Your task to perform on an android device: change the clock style Image 0: 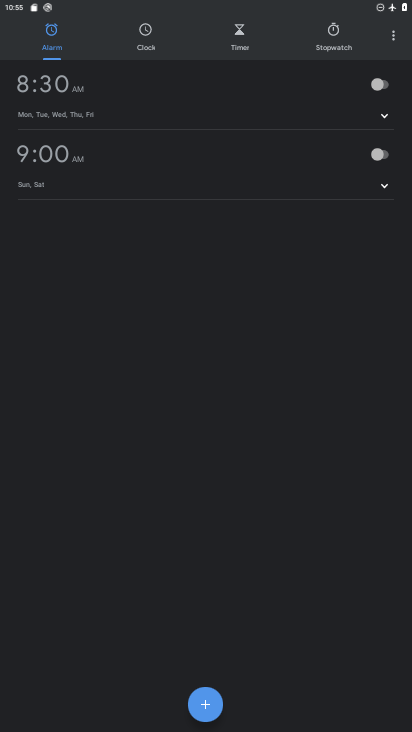
Step 0: press home button
Your task to perform on an android device: change the clock style Image 1: 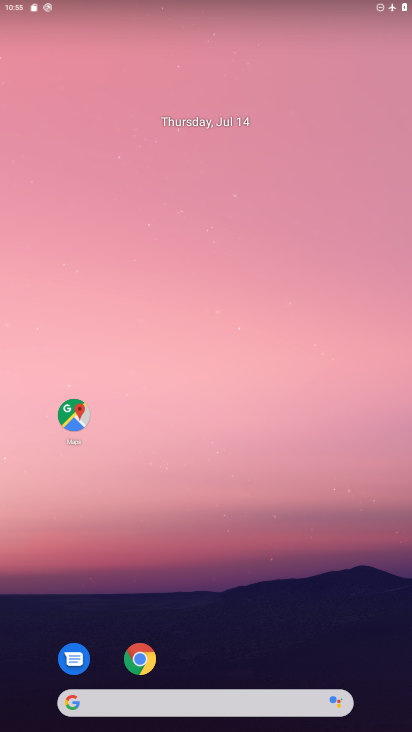
Step 1: drag from (299, 627) to (296, 148)
Your task to perform on an android device: change the clock style Image 2: 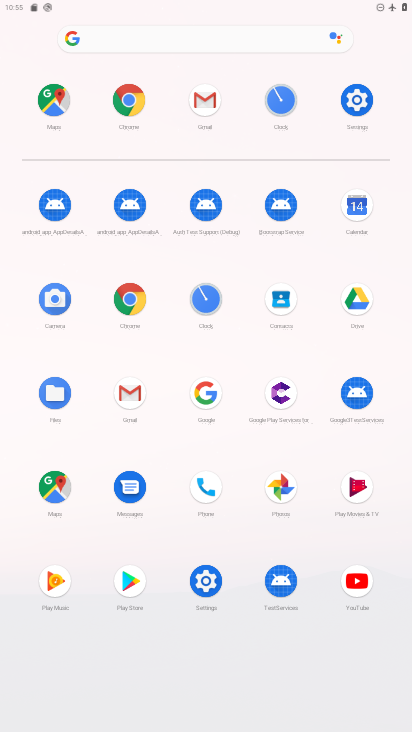
Step 2: click (203, 301)
Your task to perform on an android device: change the clock style Image 3: 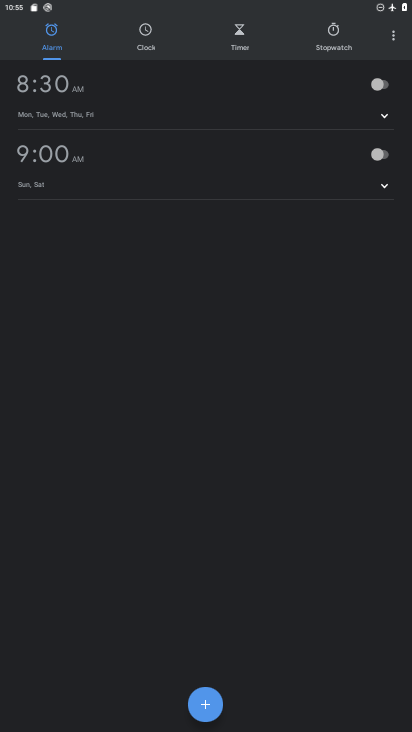
Step 3: click (387, 31)
Your task to perform on an android device: change the clock style Image 4: 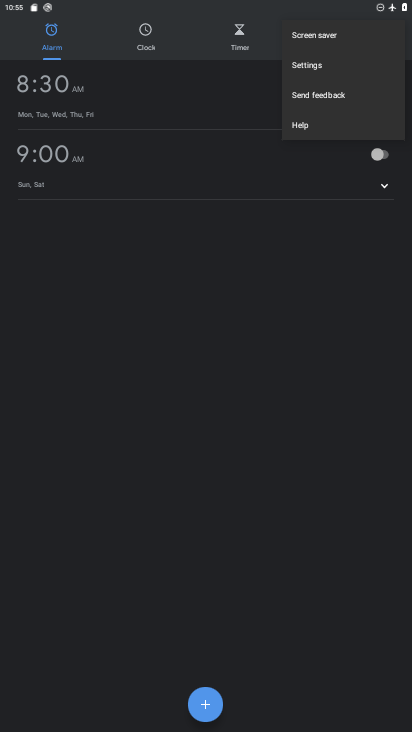
Step 4: click (304, 67)
Your task to perform on an android device: change the clock style Image 5: 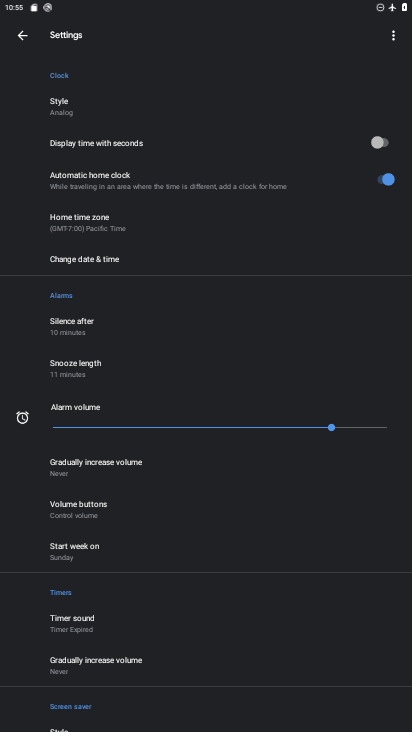
Step 5: click (58, 105)
Your task to perform on an android device: change the clock style Image 6: 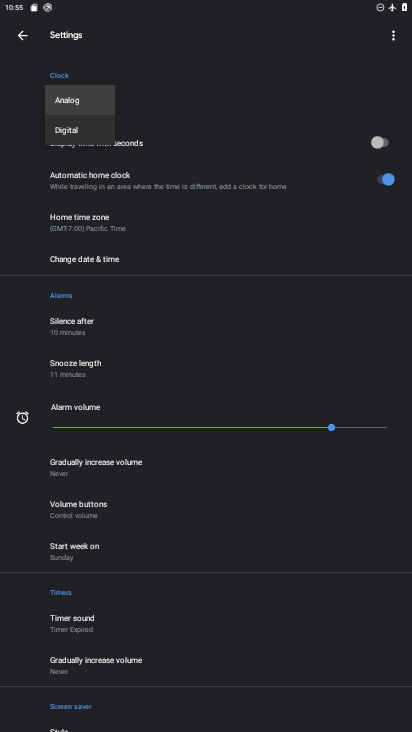
Step 6: click (87, 133)
Your task to perform on an android device: change the clock style Image 7: 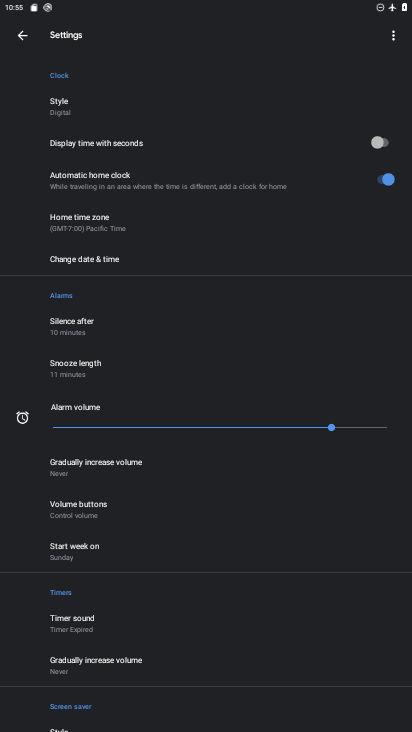
Step 7: task complete